Your task to perform on an android device: Toggle the flashlight Image 0: 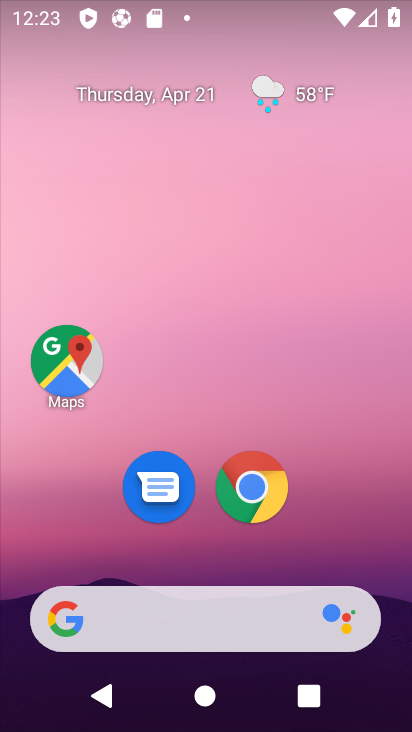
Step 0: drag from (203, 10) to (217, 569)
Your task to perform on an android device: Toggle the flashlight Image 1: 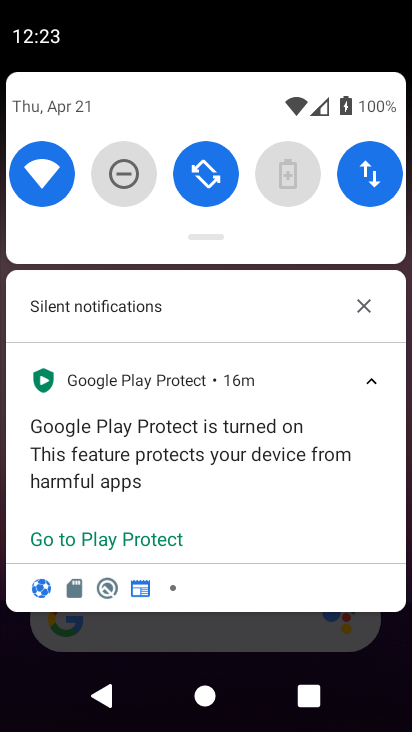
Step 1: task complete